Your task to perform on an android device: turn off location Image 0: 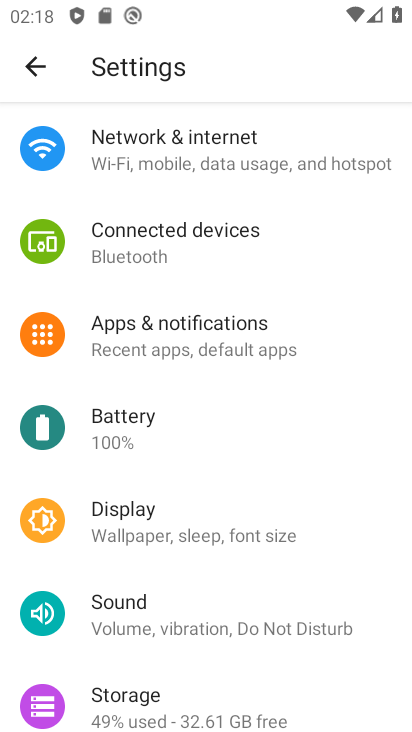
Step 0: drag from (244, 597) to (239, 178)
Your task to perform on an android device: turn off location Image 1: 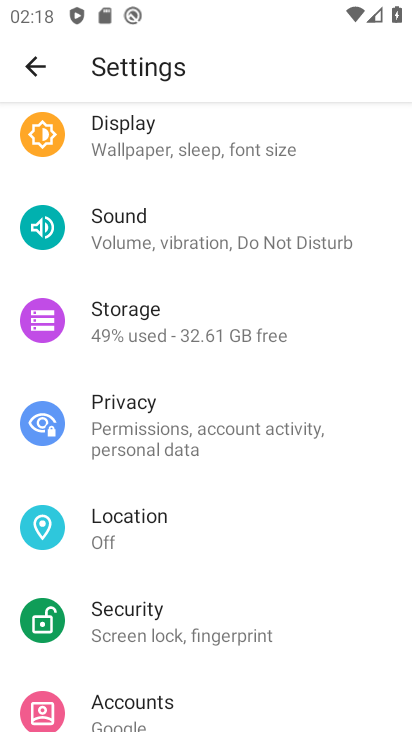
Step 1: click (176, 531)
Your task to perform on an android device: turn off location Image 2: 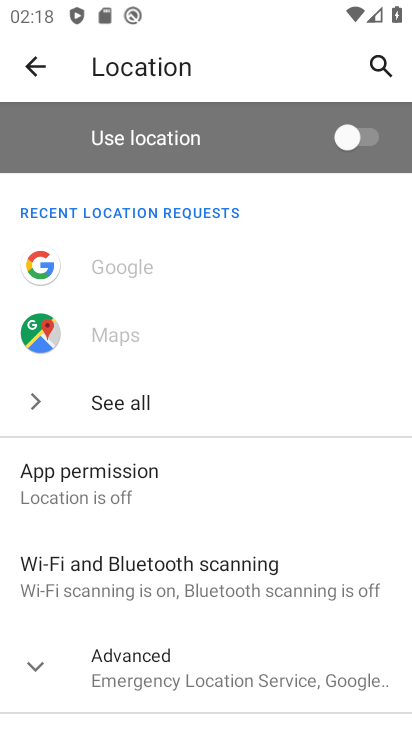
Step 2: task complete